Your task to perform on an android device: Set the phone to "Do not disturb". Image 0: 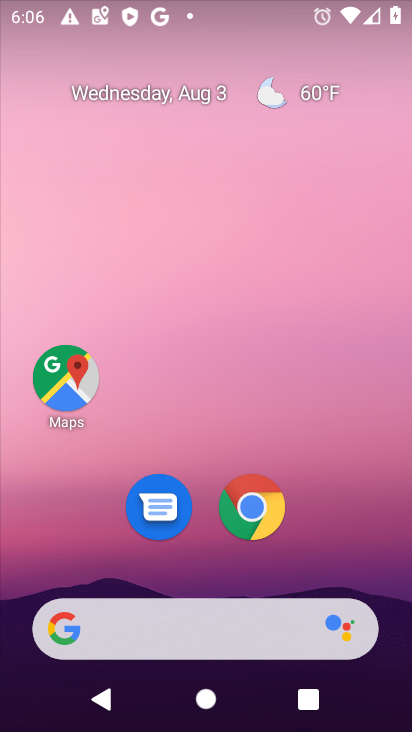
Step 0: drag from (274, 4) to (249, 523)
Your task to perform on an android device: Set the phone to "Do not disturb". Image 1: 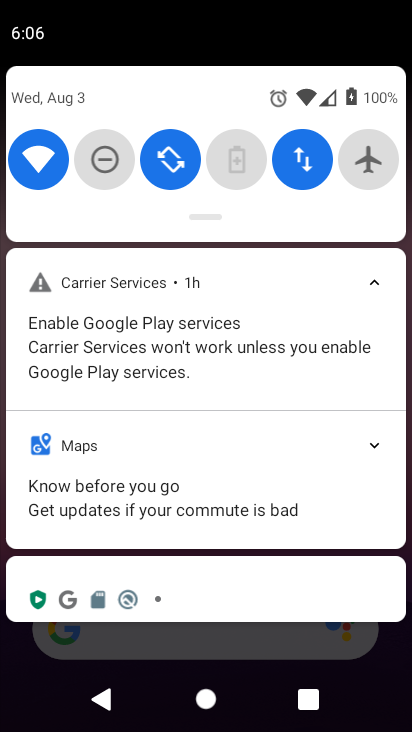
Step 1: click (100, 155)
Your task to perform on an android device: Set the phone to "Do not disturb". Image 2: 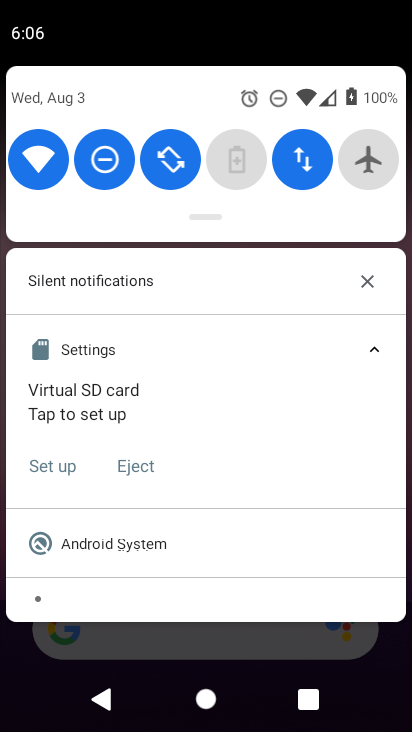
Step 2: task complete